Your task to perform on an android device: Play the last video I watched on Youtube Image 0: 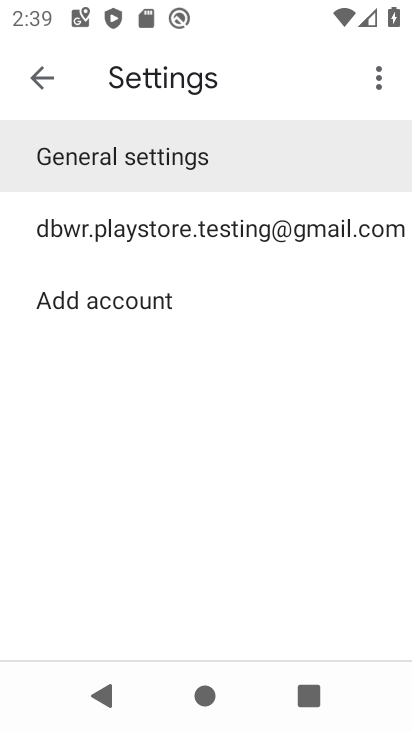
Step 0: press home button
Your task to perform on an android device: Play the last video I watched on Youtube Image 1: 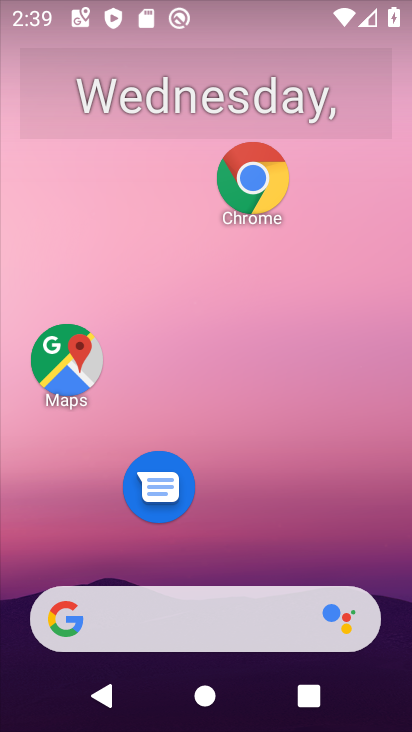
Step 1: drag from (293, 560) to (264, 77)
Your task to perform on an android device: Play the last video I watched on Youtube Image 2: 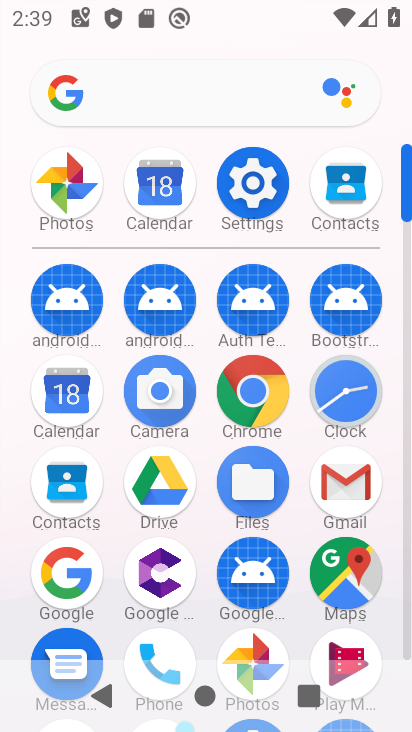
Step 2: drag from (287, 625) to (295, 208)
Your task to perform on an android device: Play the last video I watched on Youtube Image 3: 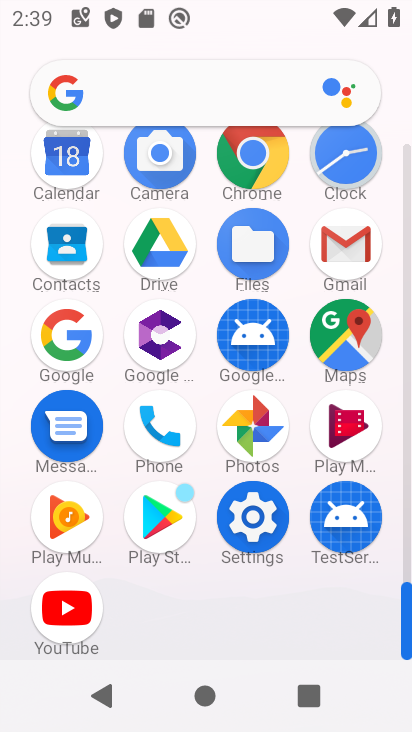
Step 3: click (66, 609)
Your task to perform on an android device: Play the last video I watched on Youtube Image 4: 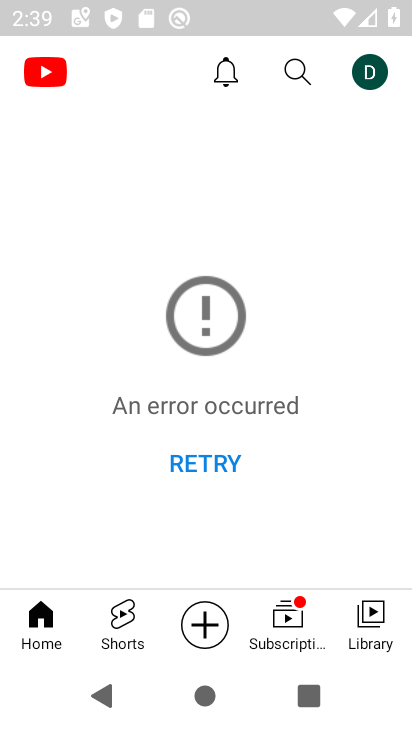
Step 4: click (358, 624)
Your task to perform on an android device: Play the last video I watched on Youtube Image 5: 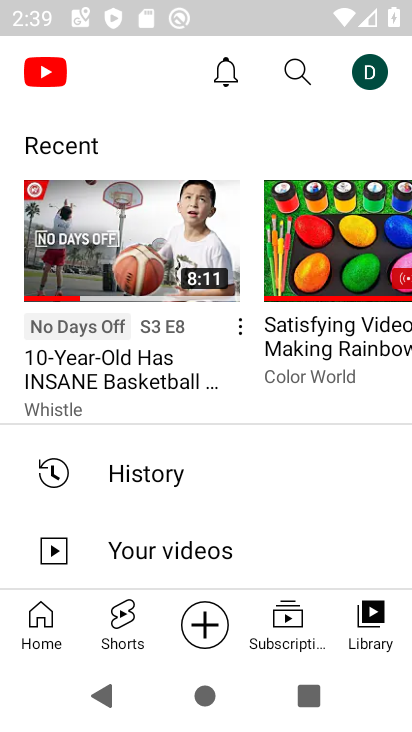
Step 5: click (104, 260)
Your task to perform on an android device: Play the last video I watched on Youtube Image 6: 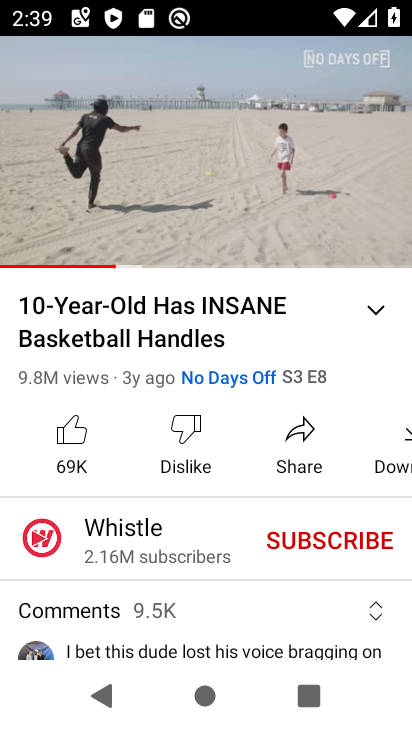
Step 6: task complete